Your task to perform on an android device: Search for Italian restaurants on Maps Image 0: 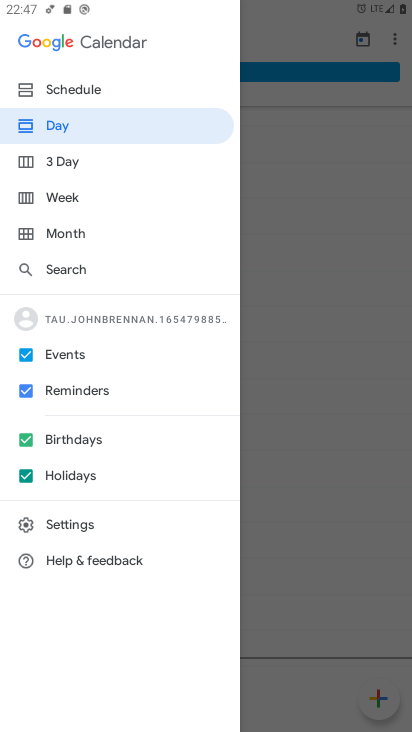
Step 0: press home button
Your task to perform on an android device: Search for Italian restaurants on Maps Image 1: 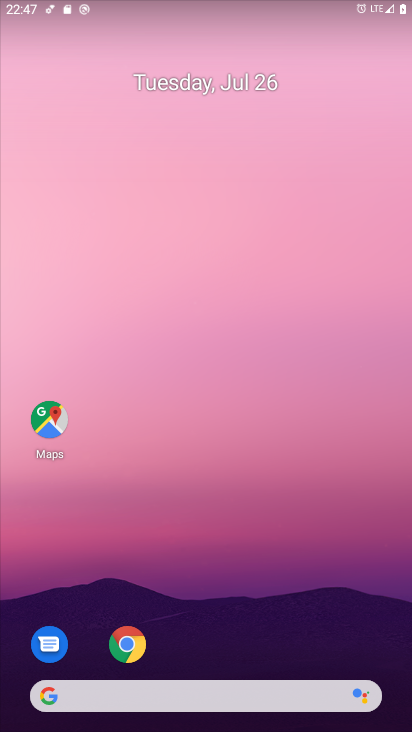
Step 1: click (36, 422)
Your task to perform on an android device: Search for Italian restaurants on Maps Image 2: 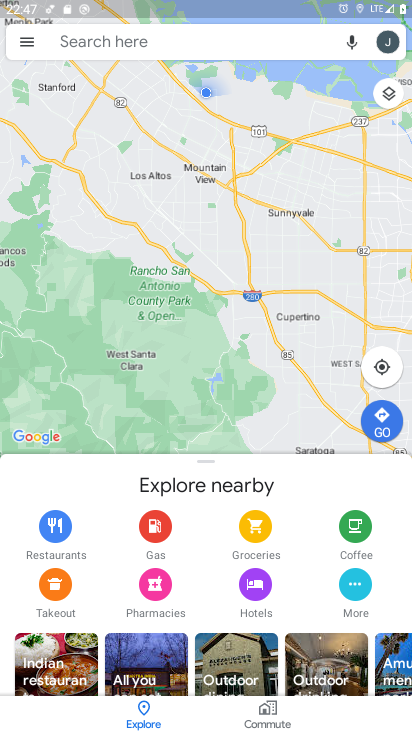
Step 2: click (182, 38)
Your task to perform on an android device: Search for Italian restaurants on Maps Image 3: 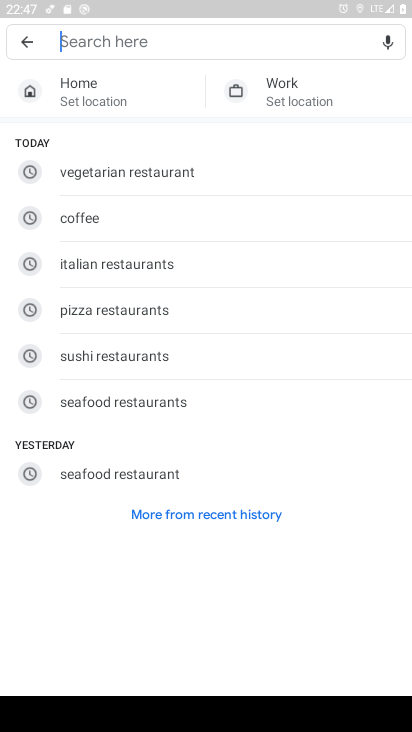
Step 3: type "italian restaurants"
Your task to perform on an android device: Search for Italian restaurants on Maps Image 4: 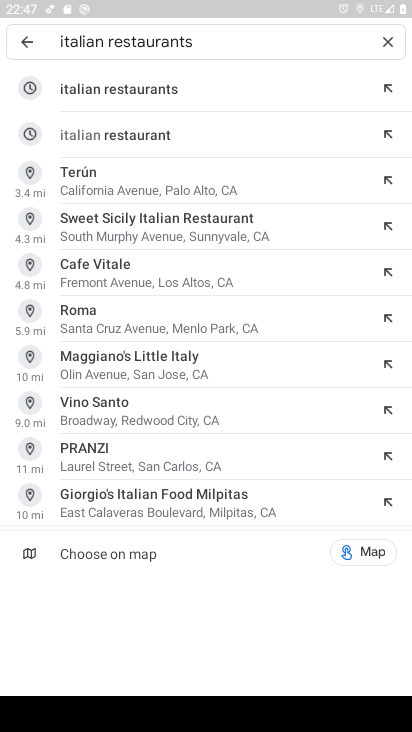
Step 4: click (139, 96)
Your task to perform on an android device: Search for Italian restaurants on Maps Image 5: 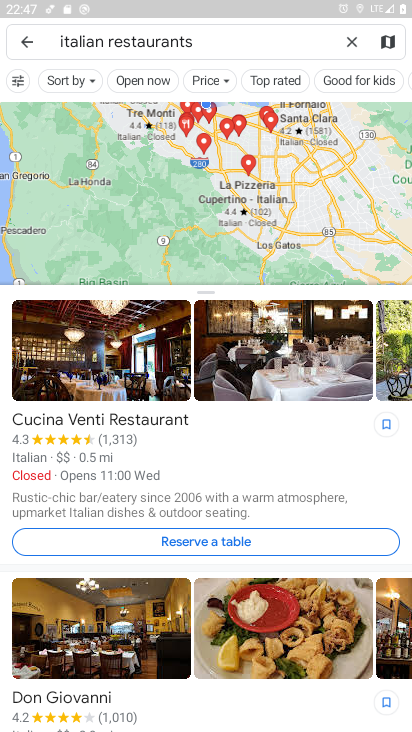
Step 5: task complete